Your task to perform on an android device: uninstall "Facebook" Image 0: 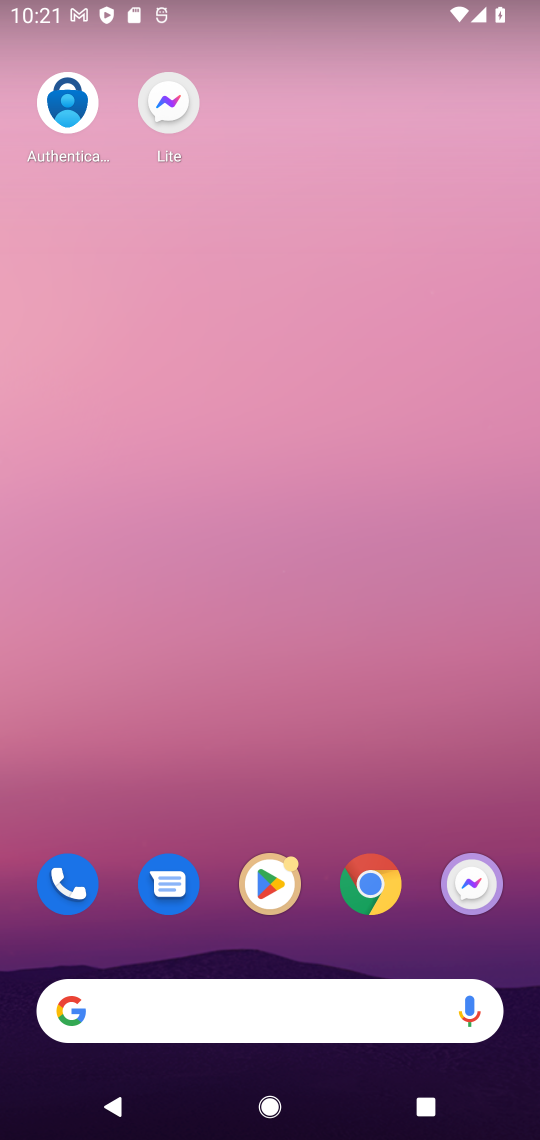
Step 0: drag from (212, 1020) to (225, 184)
Your task to perform on an android device: uninstall "Facebook" Image 1: 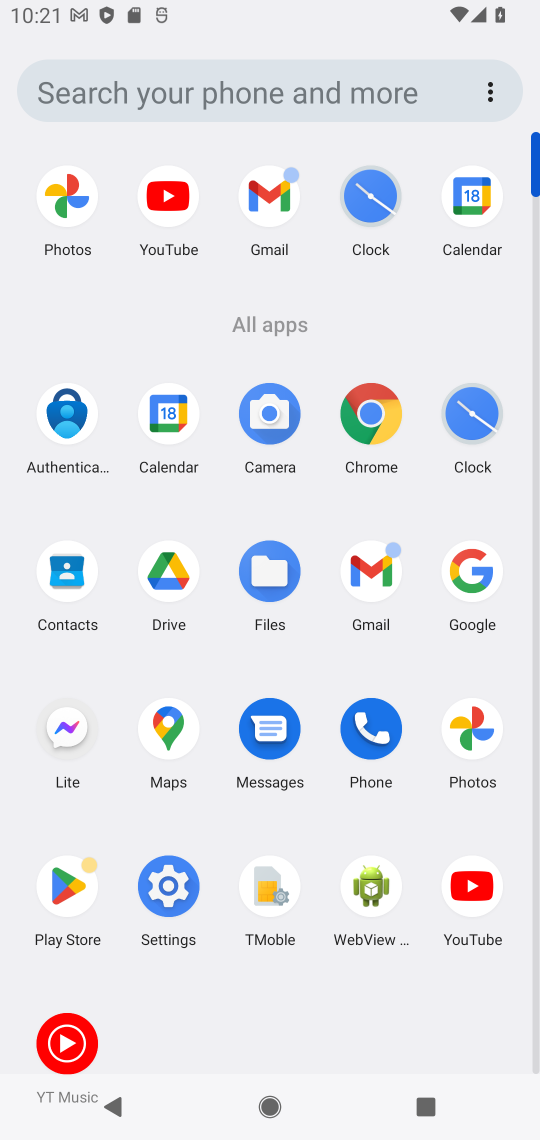
Step 1: press home button
Your task to perform on an android device: uninstall "Facebook" Image 2: 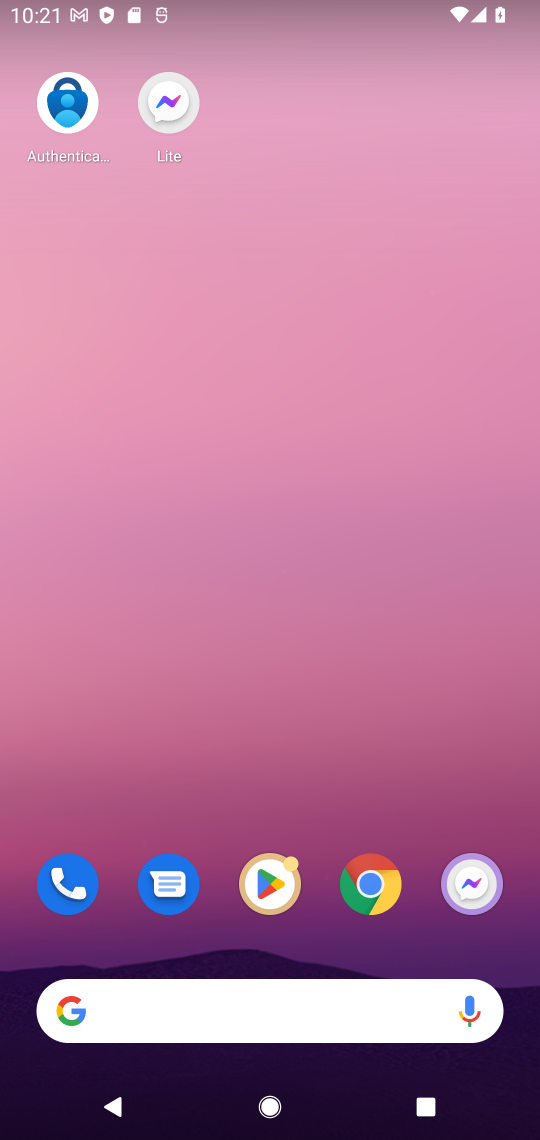
Step 2: drag from (254, 1028) to (282, 178)
Your task to perform on an android device: uninstall "Facebook" Image 3: 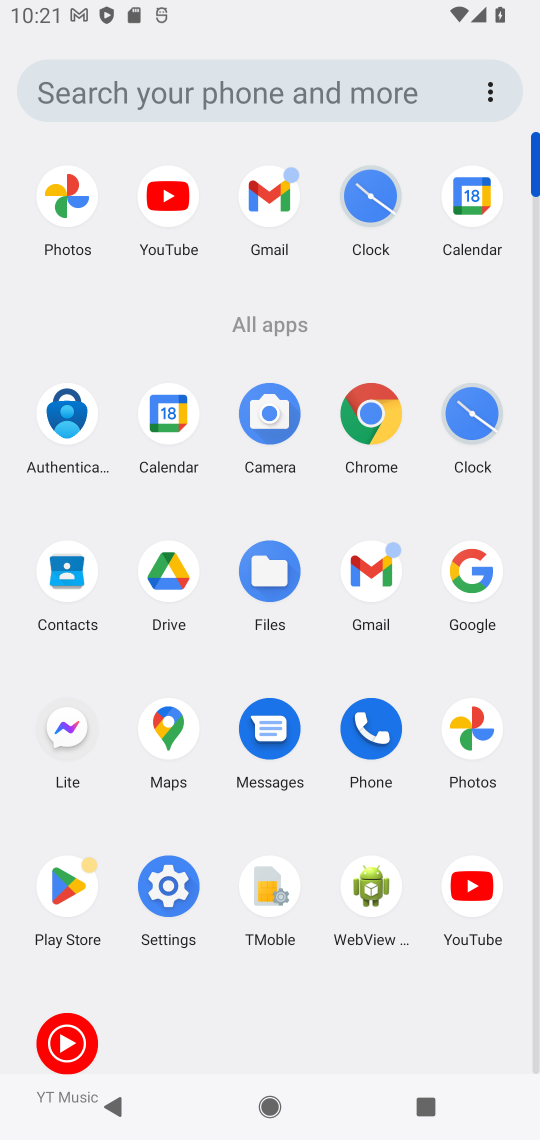
Step 3: click (75, 885)
Your task to perform on an android device: uninstall "Facebook" Image 4: 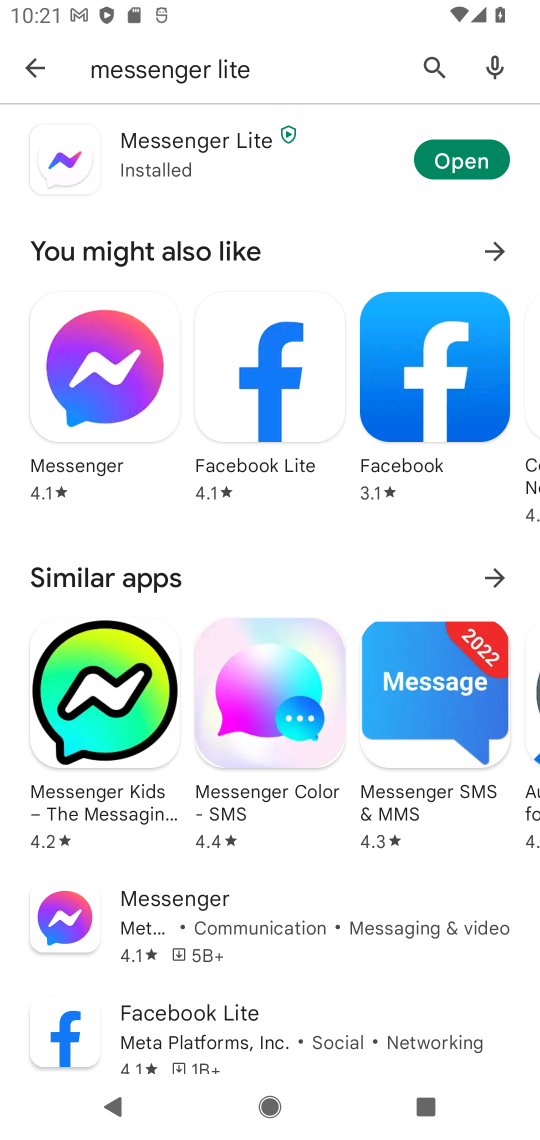
Step 4: press back button
Your task to perform on an android device: uninstall "Facebook" Image 5: 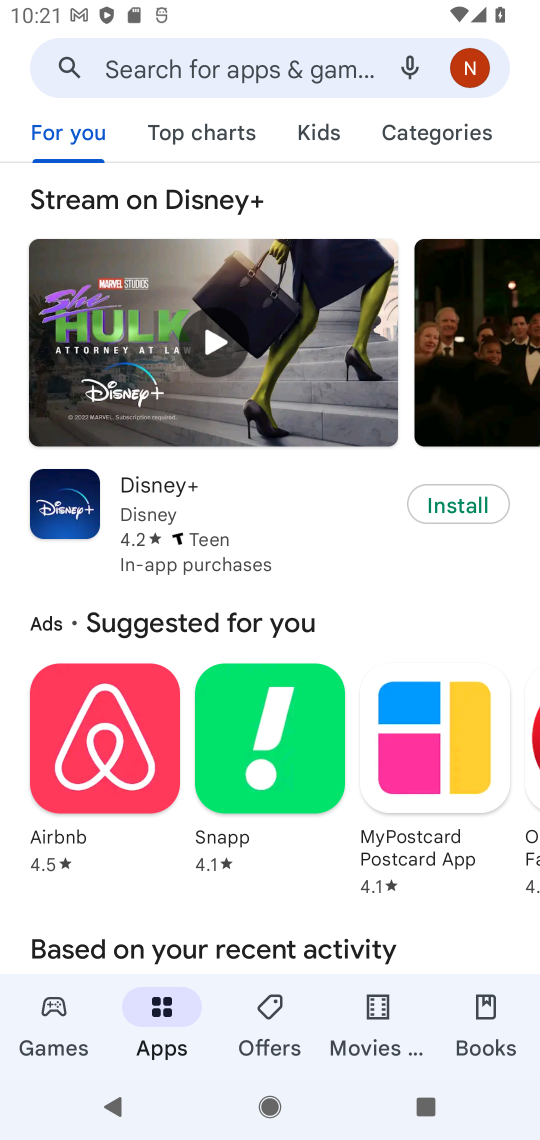
Step 5: click (312, 66)
Your task to perform on an android device: uninstall "Facebook" Image 6: 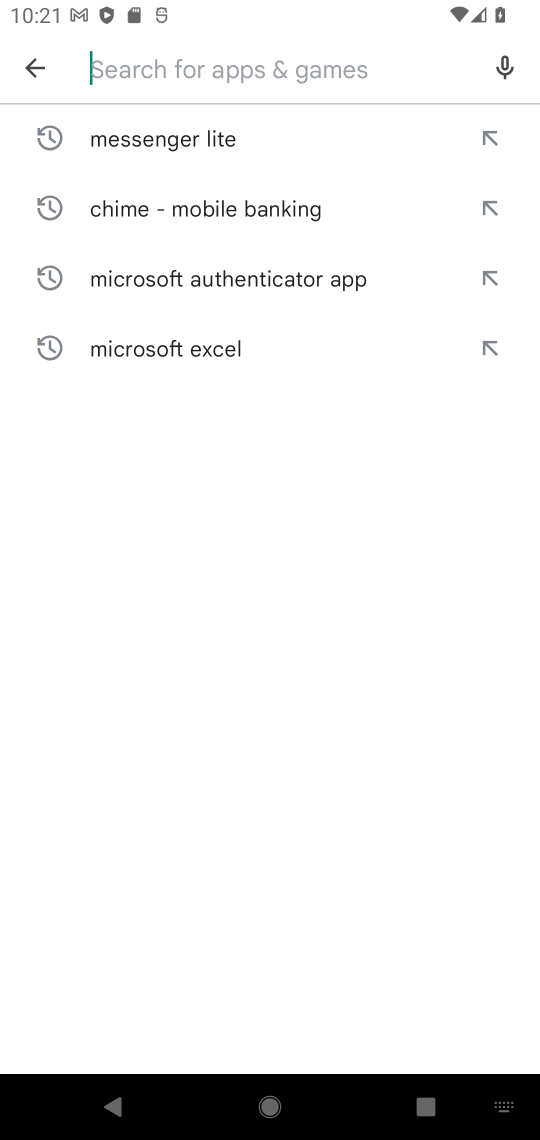
Step 6: type "Facebook"
Your task to perform on an android device: uninstall "Facebook" Image 7: 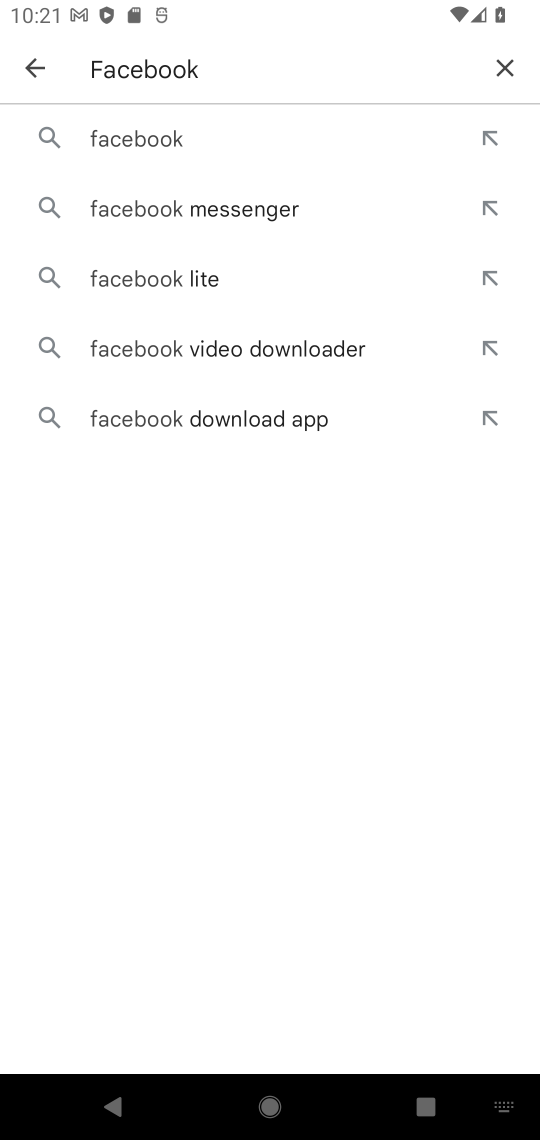
Step 7: click (149, 149)
Your task to perform on an android device: uninstall "Facebook" Image 8: 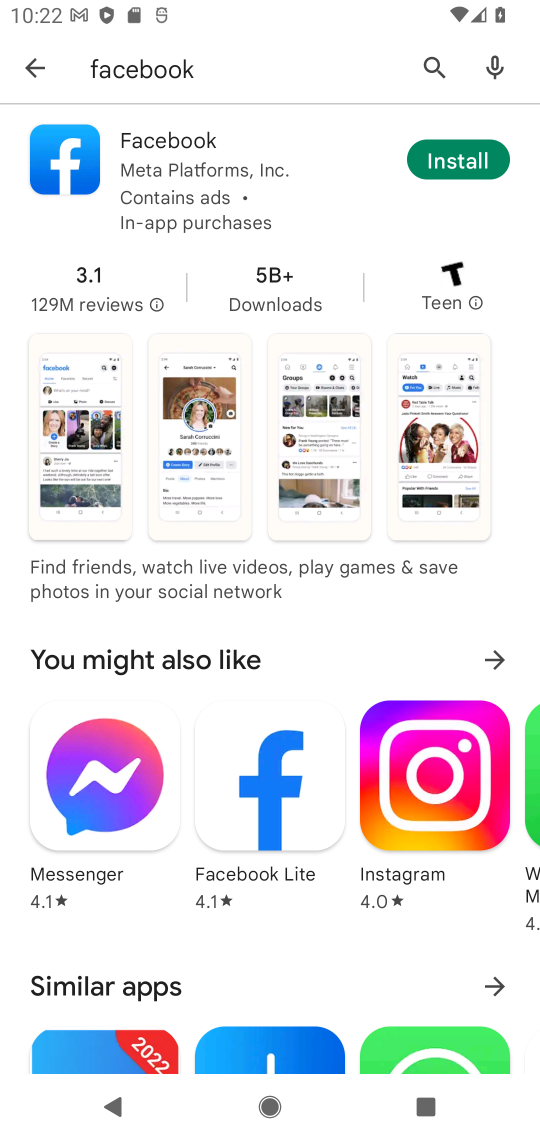
Step 8: task complete